Your task to perform on an android device: Show the shopping cart on newegg.com. Add razer blackwidow to the cart on newegg.com Image 0: 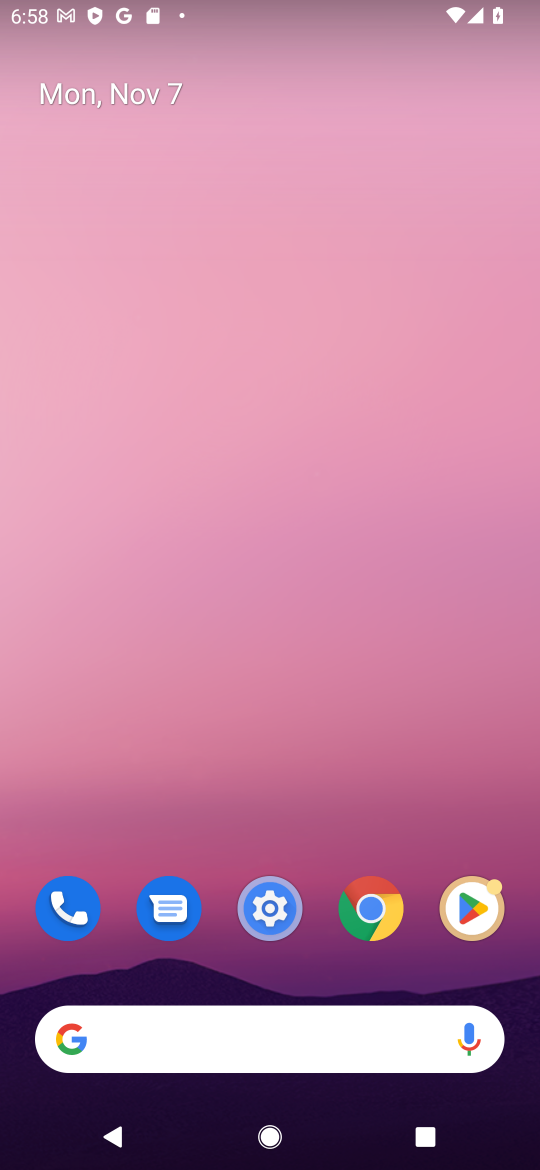
Step 0: click (244, 1015)
Your task to perform on an android device: Show the shopping cart on newegg.com. Add razer blackwidow to the cart on newegg.com Image 1: 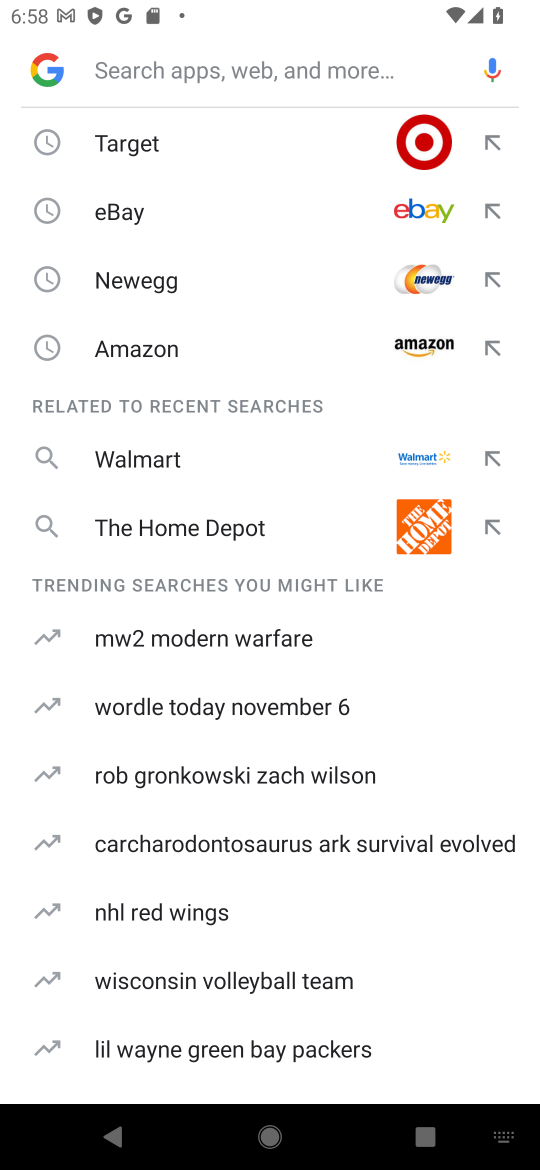
Step 1: click (196, 298)
Your task to perform on an android device: Show the shopping cart on newegg.com. Add razer blackwidow to the cart on newegg.com Image 2: 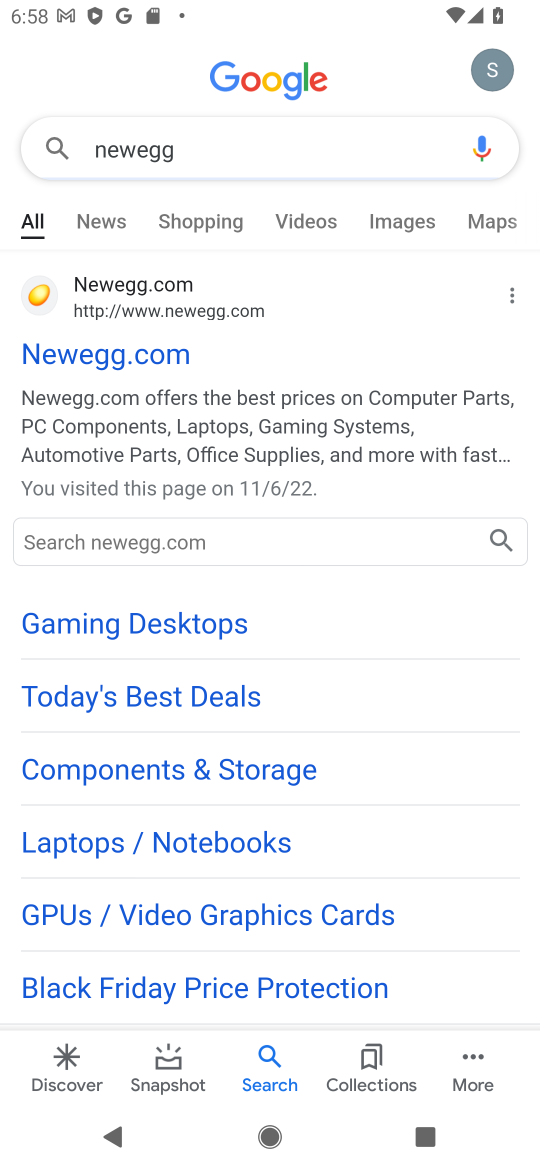
Step 2: click (162, 379)
Your task to perform on an android device: Show the shopping cart on newegg.com. Add razer blackwidow to the cart on newegg.com Image 3: 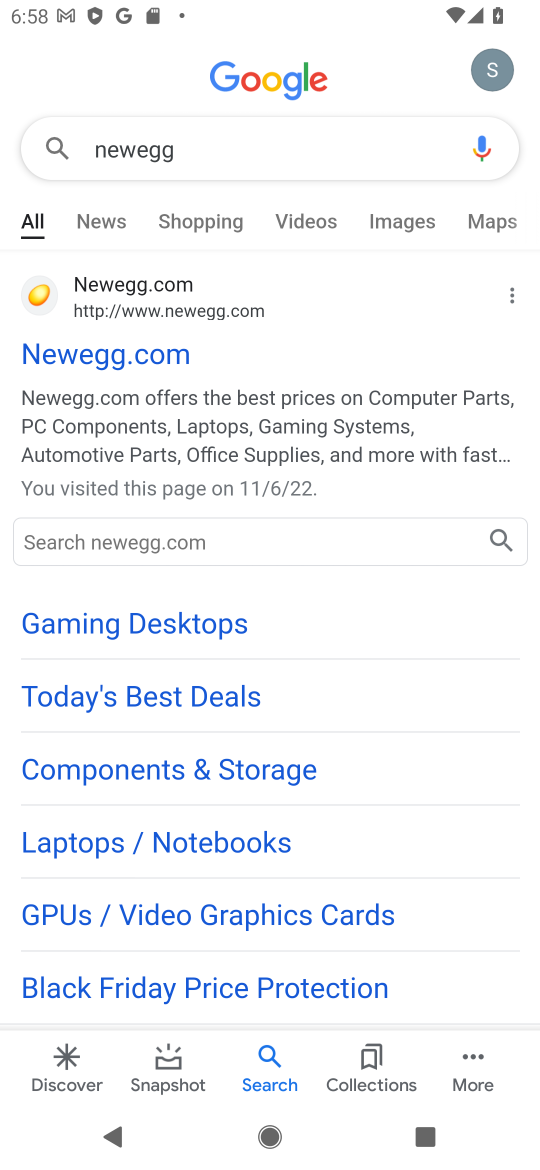
Step 3: task complete